Your task to perform on an android device: move an email to a new category in the gmail app Image 0: 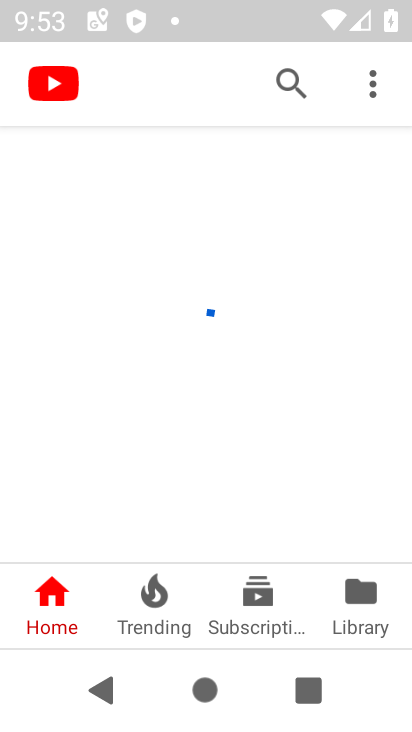
Step 0: press home button
Your task to perform on an android device: move an email to a new category in the gmail app Image 1: 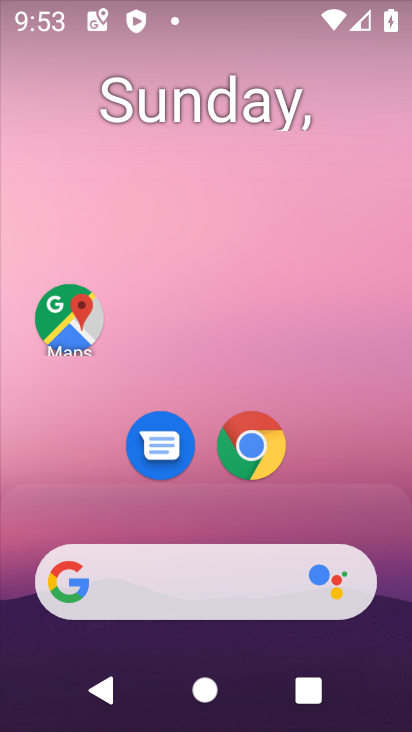
Step 1: drag from (375, 511) to (329, 144)
Your task to perform on an android device: move an email to a new category in the gmail app Image 2: 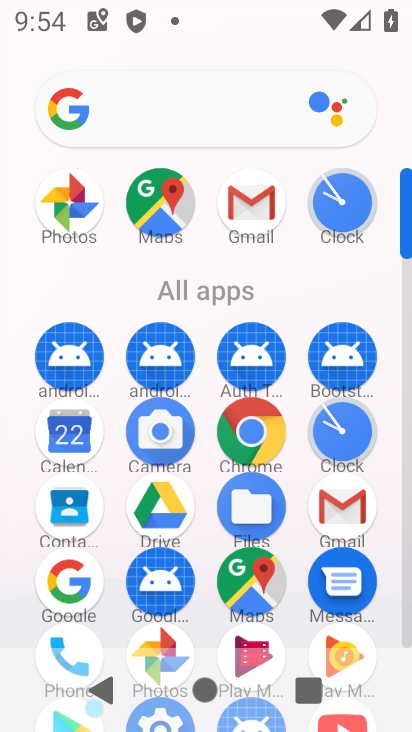
Step 2: click (404, 637)
Your task to perform on an android device: move an email to a new category in the gmail app Image 3: 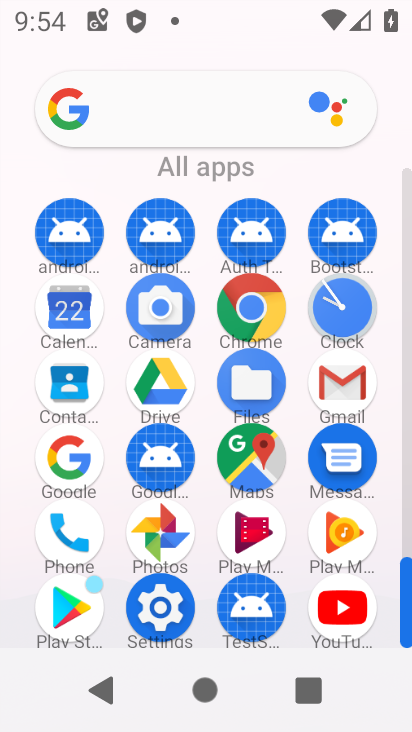
Step 3: click (334, 396)
Your task to perform on an android device: move an email to a new category in the gmail app Image 4: 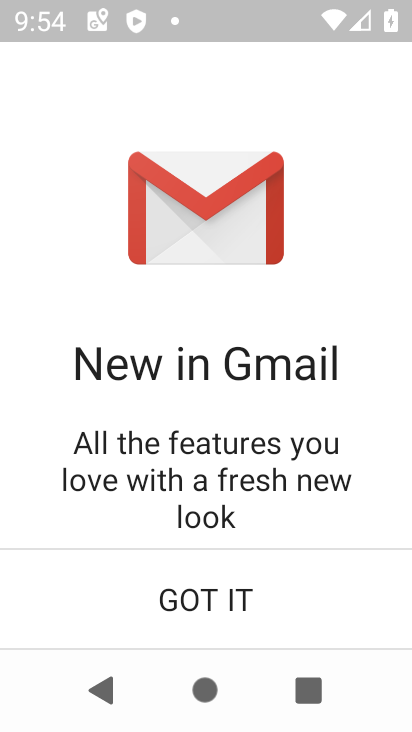
Step 4: click (246, 606)
Your task to perform on an android device: move an email to a new category in the gmail app Image 5: 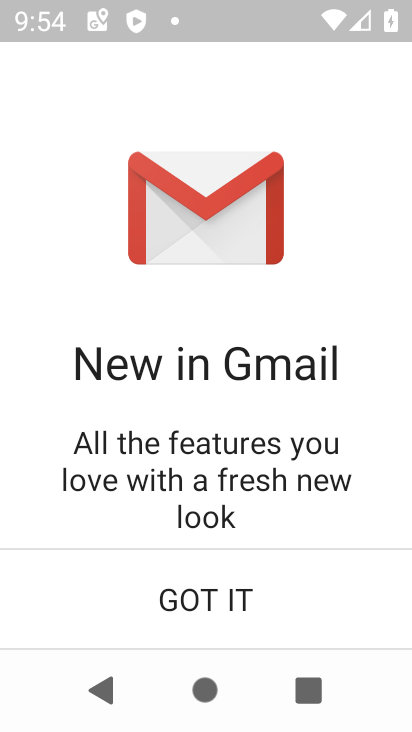
Step 5: click (246, 606)
Your task to perform on an android device: move an email to a new category in the gmail app Image 6: 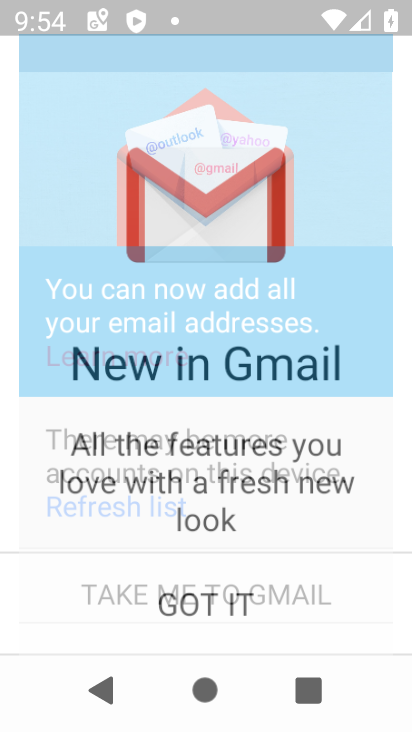
Step 6: click (246, 606)
Your task to perform on an android device: move an email to a new category in the gmail app Image 7: 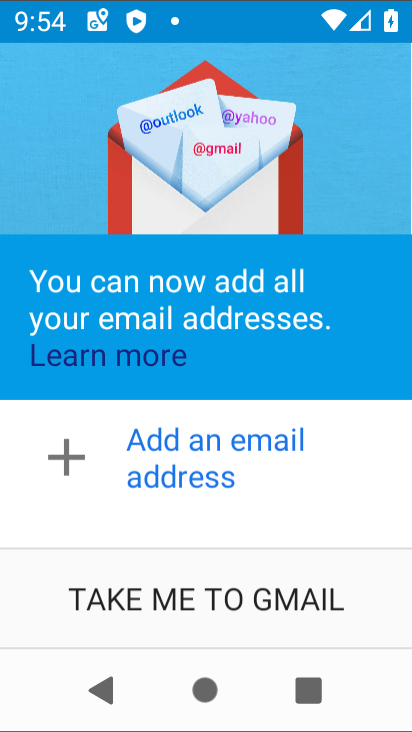
Step 7: click (246, 596)
Your task to perform on an android device: move an email to a new category in the gmail app Image 8: 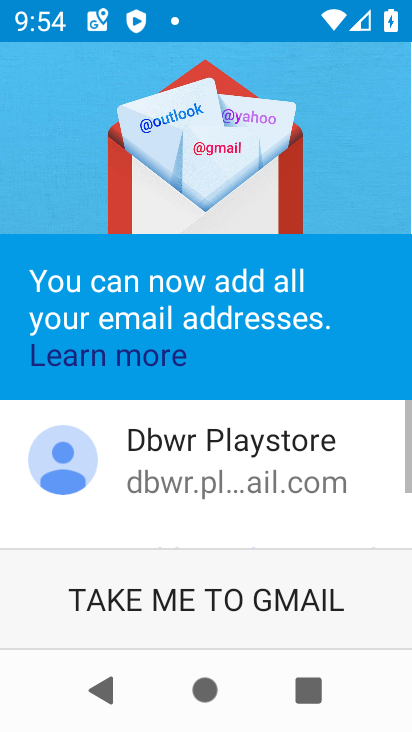
Step 8: click (246, 596)
Your task to perform on an android device: move an email to a new category in the gmail app Image 9: 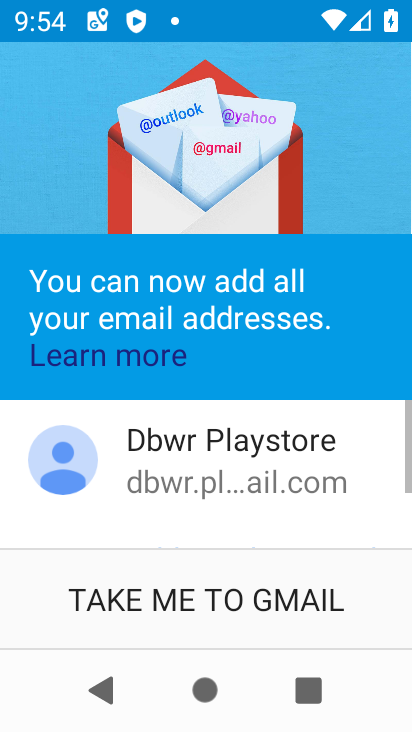
Step 9: click (246, 596)
Your task to perform on an android device: move an email to a new category in the gmail app Image 10: 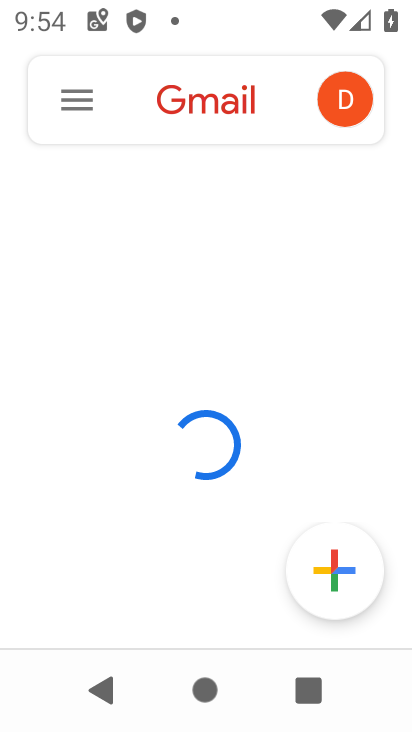
Step 10: click (81, 103)
Your task to perform on an android device: move an email to a new category in the gmail app Image 11: 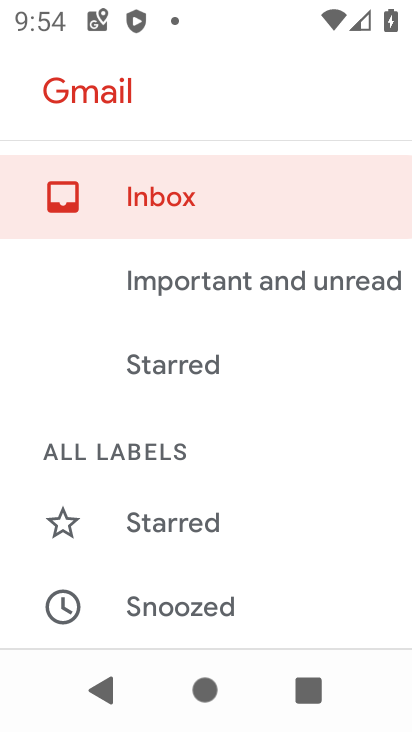
Step 11: task complete